Your task to perform on an android device: set the stopwatch Image 0: 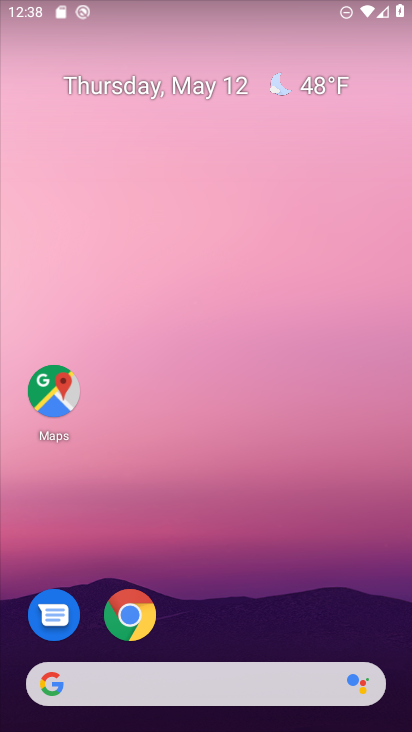
Step 0: drag from (271, 448) to (262, 4)
Your task to perform on an android device: set the stopwatch Image 1: 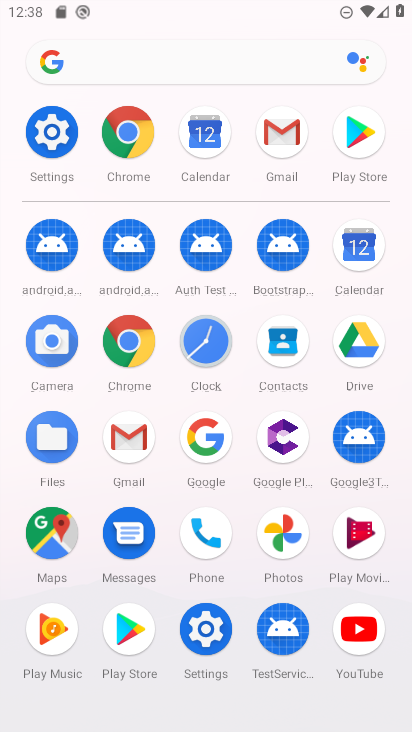
Step 1: click (219, 339)
Your task to perform on an android device: set the stopwatch Image 2: 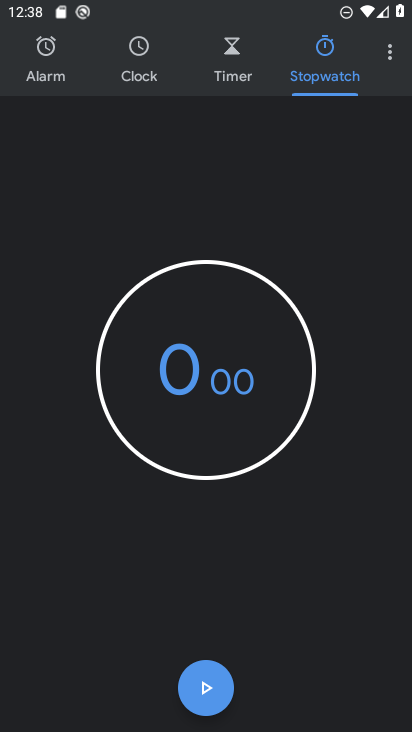
Step 2: click (212, 680)
Your task to perform on an android device: set the stopwatch Image 3: 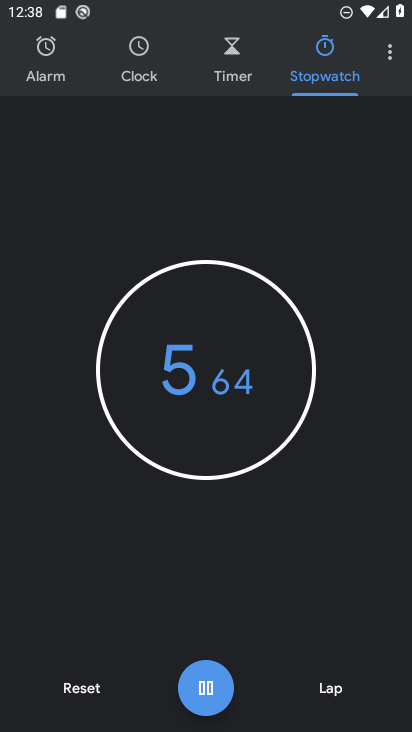
Step 3: click (212, 680)
Your task to perform on an android device: set the stopwatch Image 4: 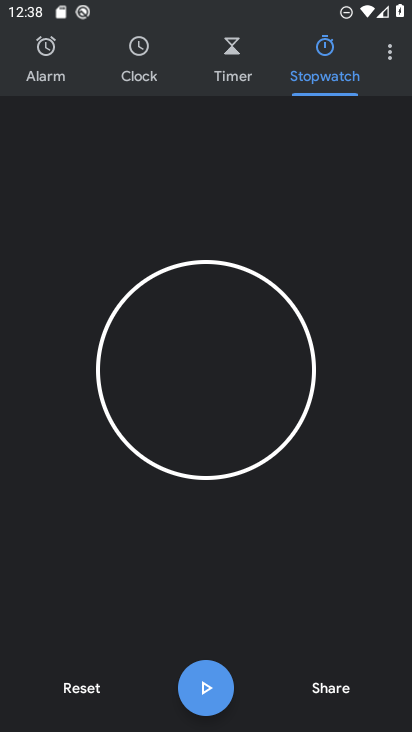
Step 4: task complete